Your task to perform on an android device: change notification settings in the gmail app Image 0: 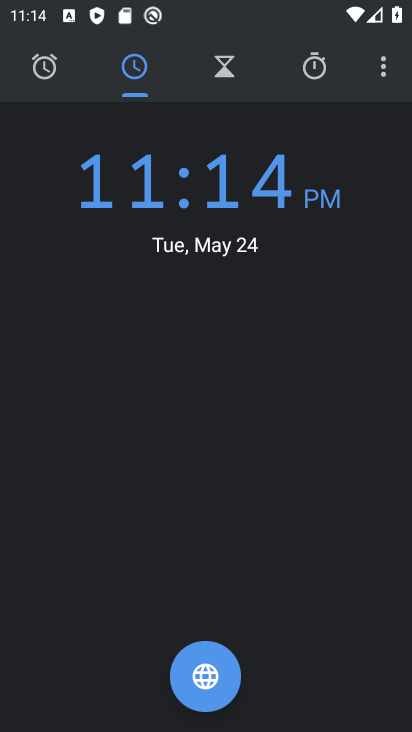
Step 0: press home button
Your task to perform on an android device: change notification settings in the gmail app Image 1: 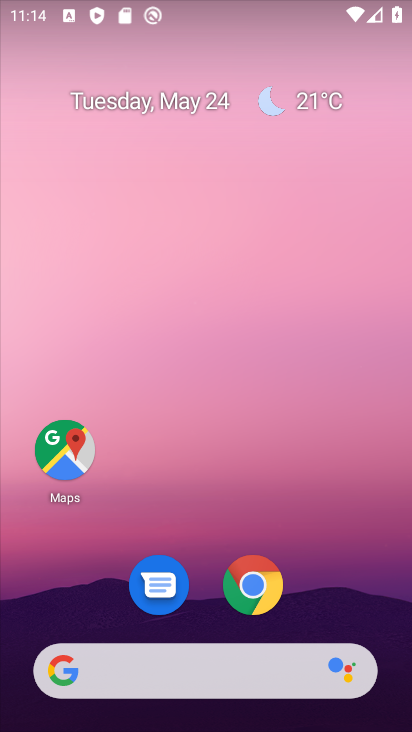
Step 1: drag from (278, 546) to (308, 16)
Your task to perform on an android device: change notification settings in the gmail app Image 2: 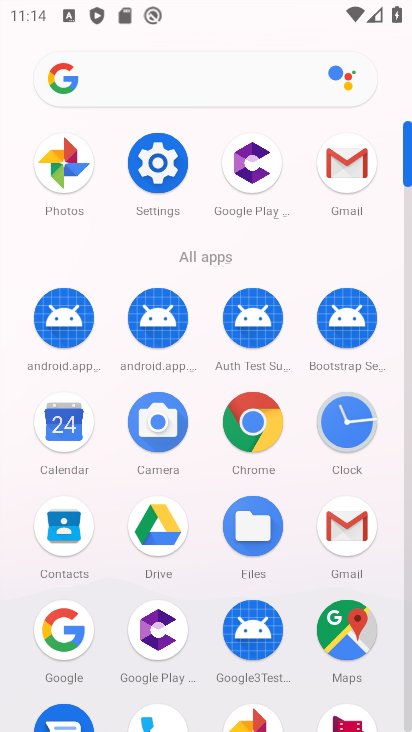
Step 2: click (348, 158)
Your task to perform on an android device: change notification settings in the gmail app Image 3: 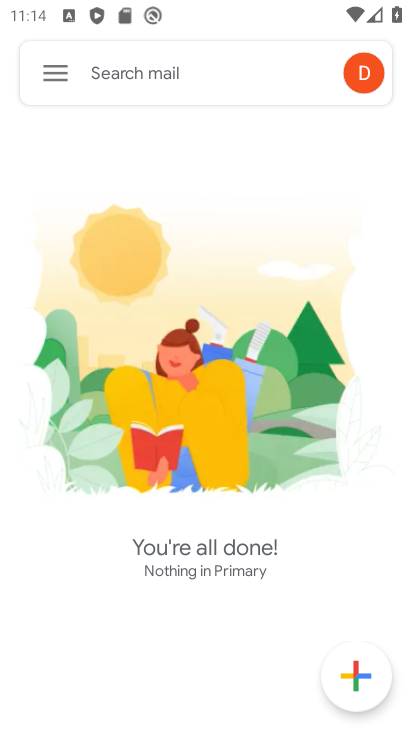
Step 3: click (45, 68)
Your task to perform on an android device: change notification settings in the gmail app Image 4: 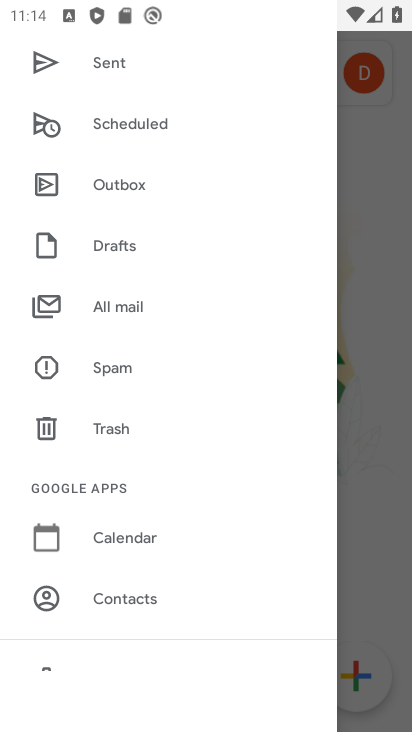
Step 4: drag from (146, 544) to (186, 302)
Your task to perform on an android device: change notification settings in the gmail app Image 5: 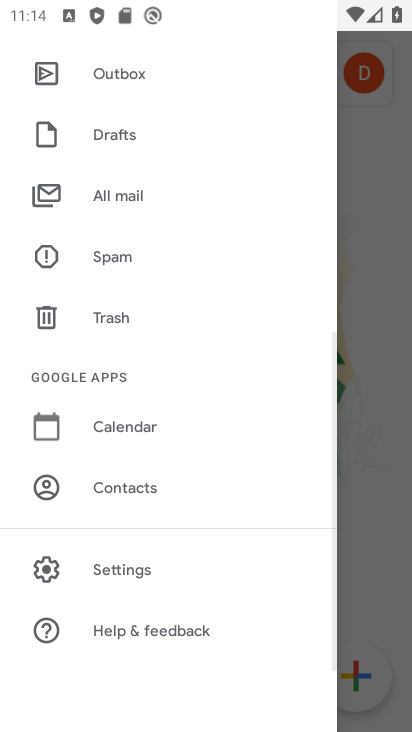
Step 5: click (139, 563)
Your task to perform on an android device: change notification settings in the gmail app Image 6: 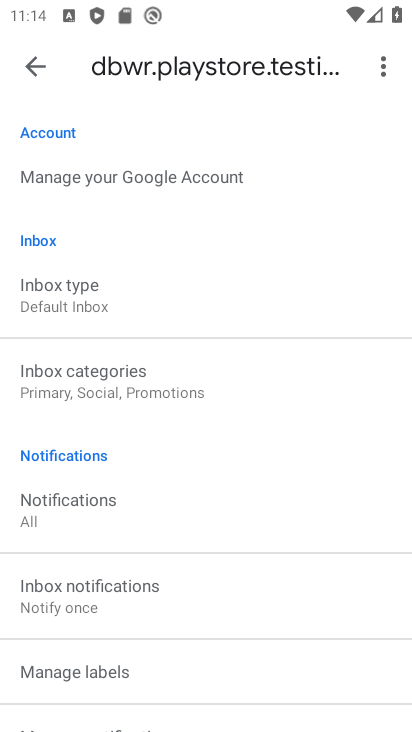
Step 6: drag from (210, 483) to (244, 233)
Your task to perform on an android device: change notification settings in the gmail app Image 7: 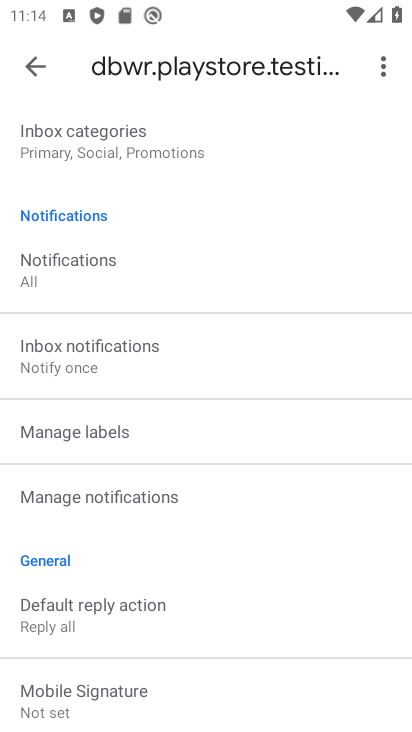
Step 7: click (229, 486)
Your task to perform on an android device: change notification settings in the gmail app Image 8: 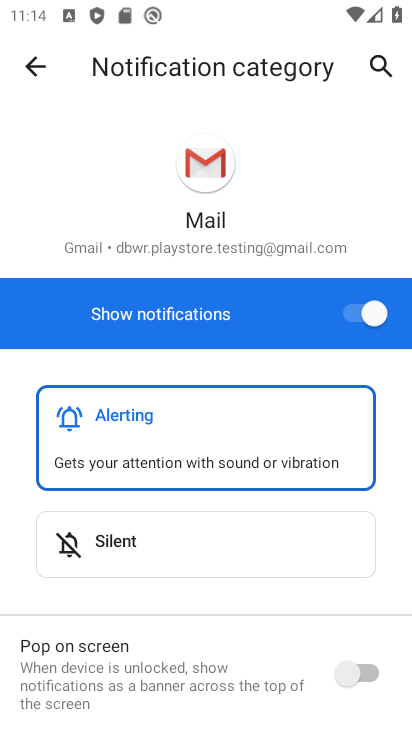
Step 8: click (356, 301)
Your task to perform on an android device: change notification settings in the gmail app Image 9: 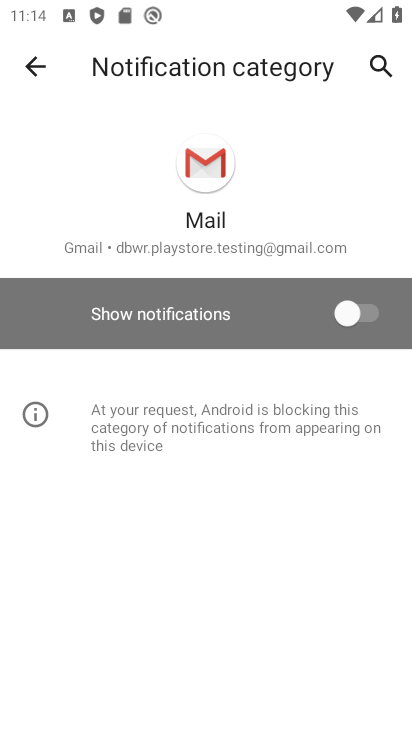
Step 9: task complete